Your task to perform on an android device: turn off javascript in the chrome app Image 0: 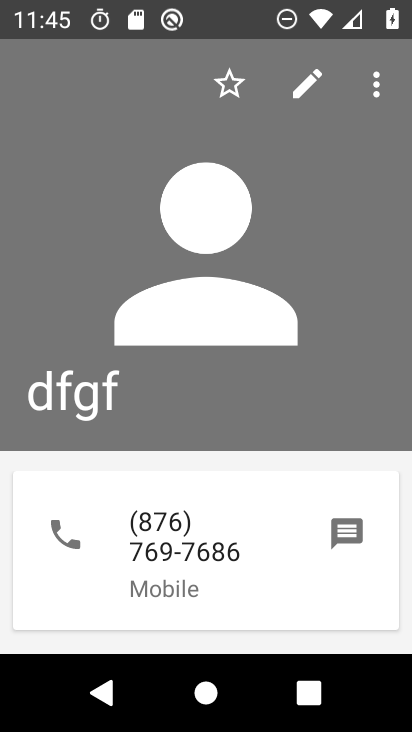
Step 0: press home button
Your task to perform on an android device: turn off javascript in the chrome app Image 1: 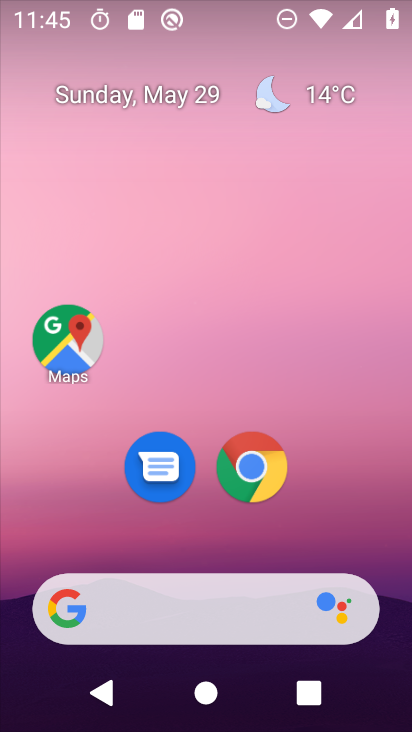
Step 1: click (251, 471)
Your task to perform on an android device: turn off javascript in the chrome app Image 2: 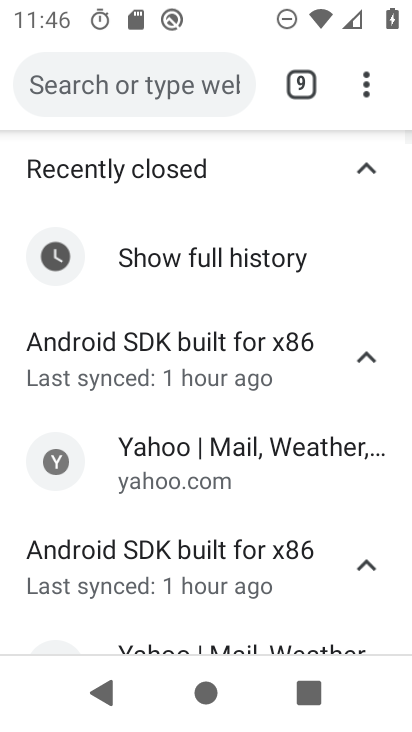
Step 2: drag from (359, 98) to (99, 516)
Your task to perform on an android device: turn off javascript in the chrome app Image 3: 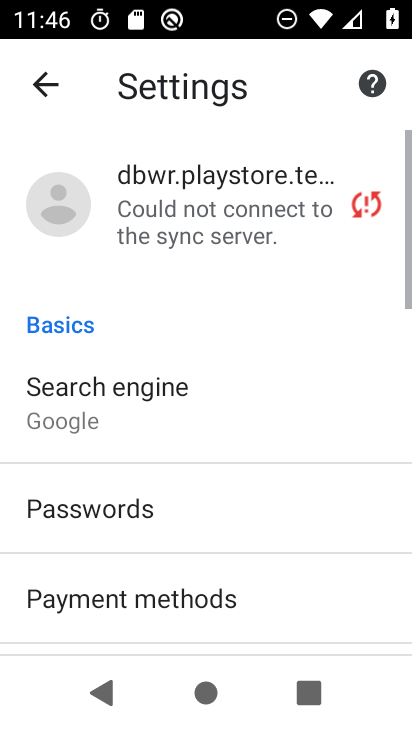
Step 3: drag from (154, 561) to (147, 240)
Your task to perform on an android device: turn off javascript in the chrome app Image 4: 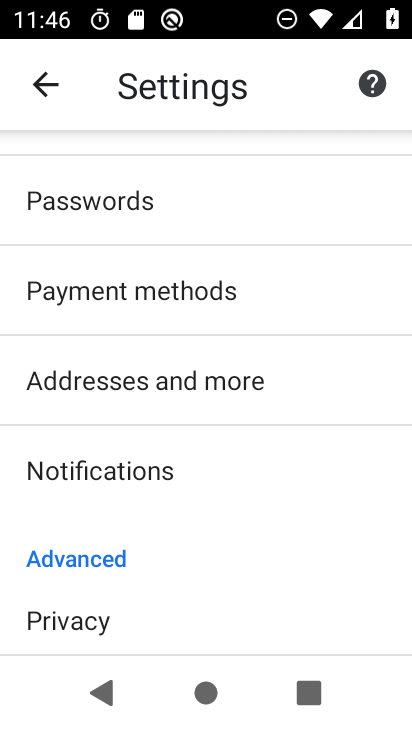
Step 4: drag from (184, 571) to (197, 239)
Your task to perform on an android device: turn off javascript in the chrome app Image 5: 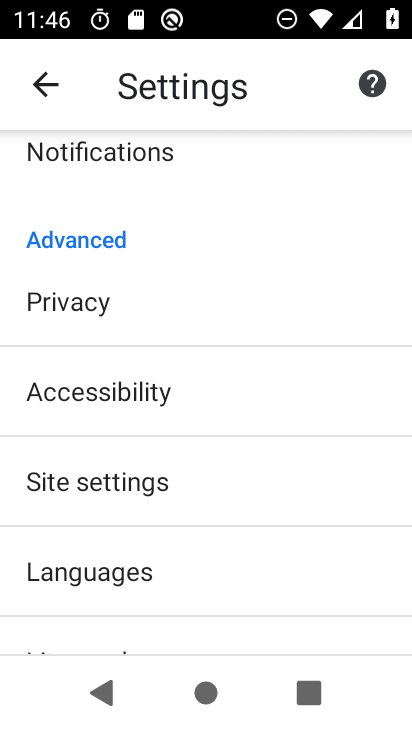
Step 5: drag from (181, 269) to (181, 235)
Your task to perform on an android device: turn off javascript in the chrome app Image 6: 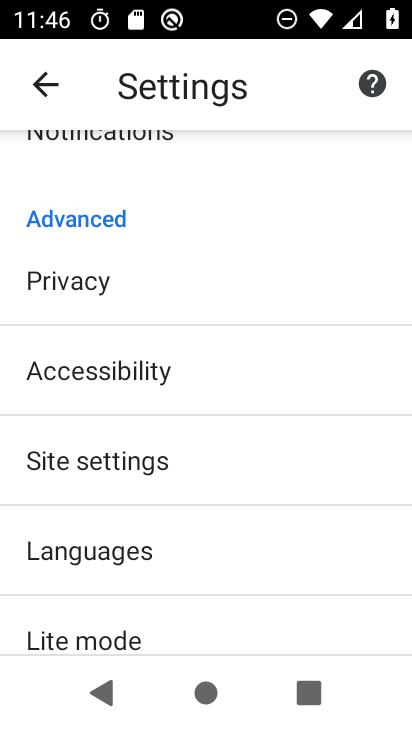
Step 6: drag from (165, 509) to (205, 268)
Your task to perform on an android device: turn off javascript in the chrome app Image 7: 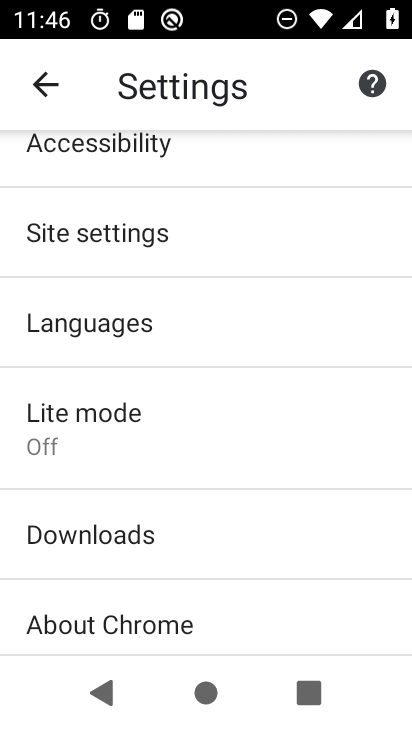
Step 7: drag from (111, 551) to (140, 349)
Your task to perform on an android device: turn off javascript in the chrome app Image 8: 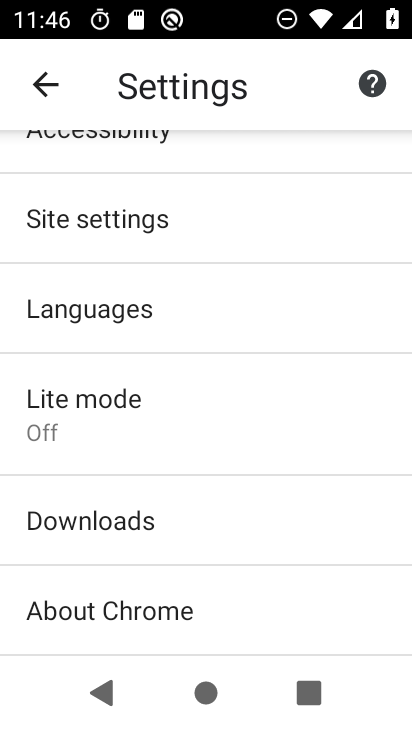
Step 8: click (155, 234)
Your task to perform on an android device: turn off javascript in the chrome app Image 9: 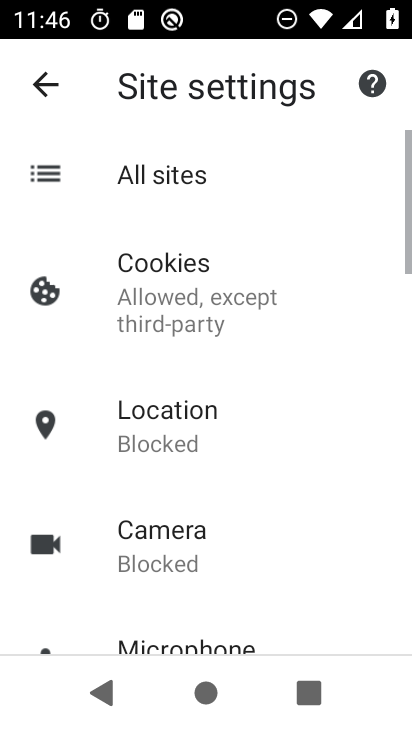
Step 9: drag from (208, 592) to (222, 251)
Your task to perform on an android device: turn off javascript in the chrome app Image 10: 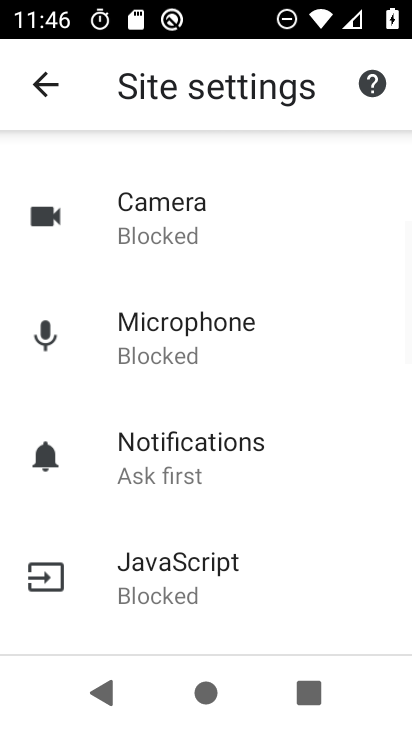
Step 10: click (204, 541)
Your task to perform on an android device: turn off javascript in the chrome app Image 11: 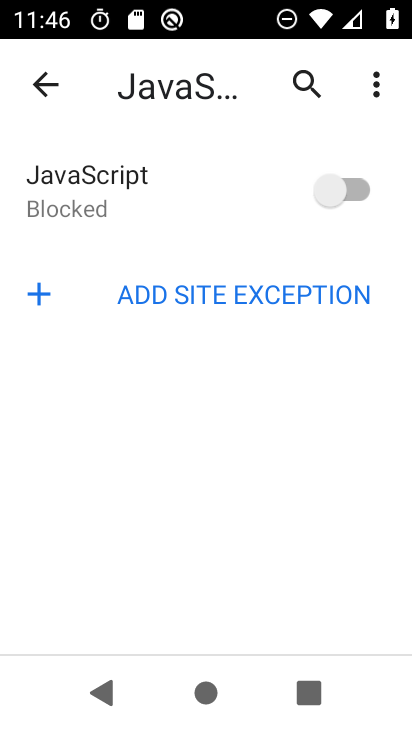
Step 11: task complete